Your task to perform on an android device: remove spam from my inbox in the gmail app Image 0: 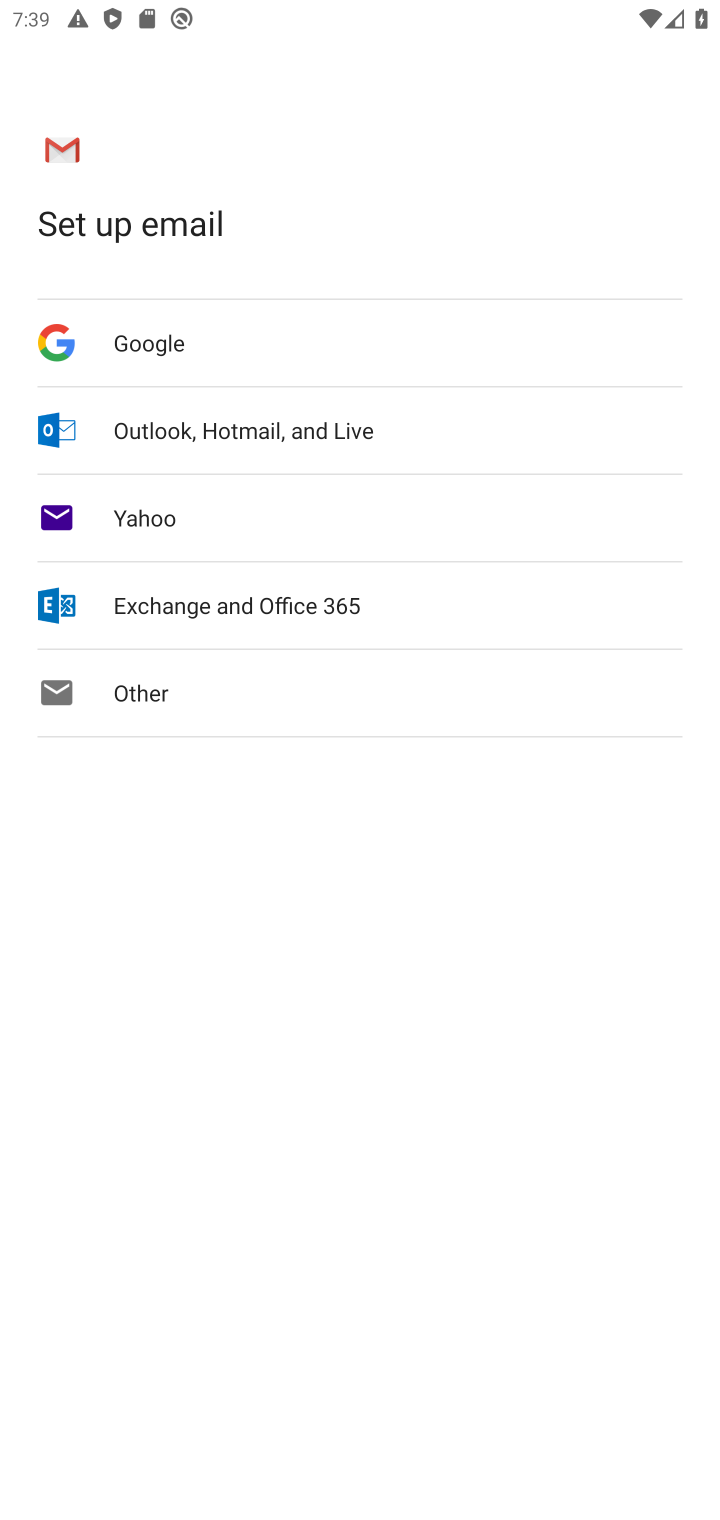
Step 0: press home button
Your task to perform on an android device: remove spam from my inbox in the gmail app Image 1: 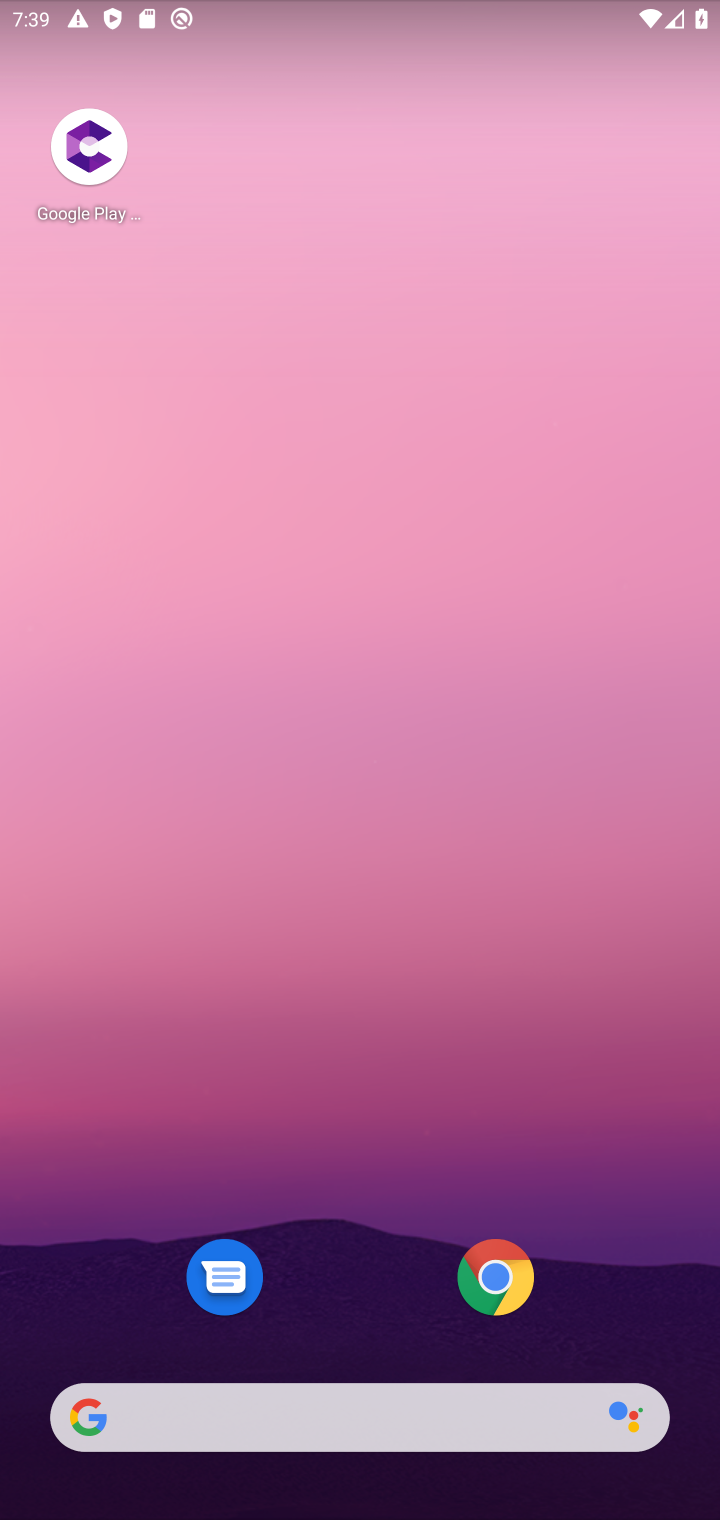
Step 1: drag from (408, 1421) to (311, 43)
Your task to perform on an android device: remove spam from my inbox in the gmail app Image 2: 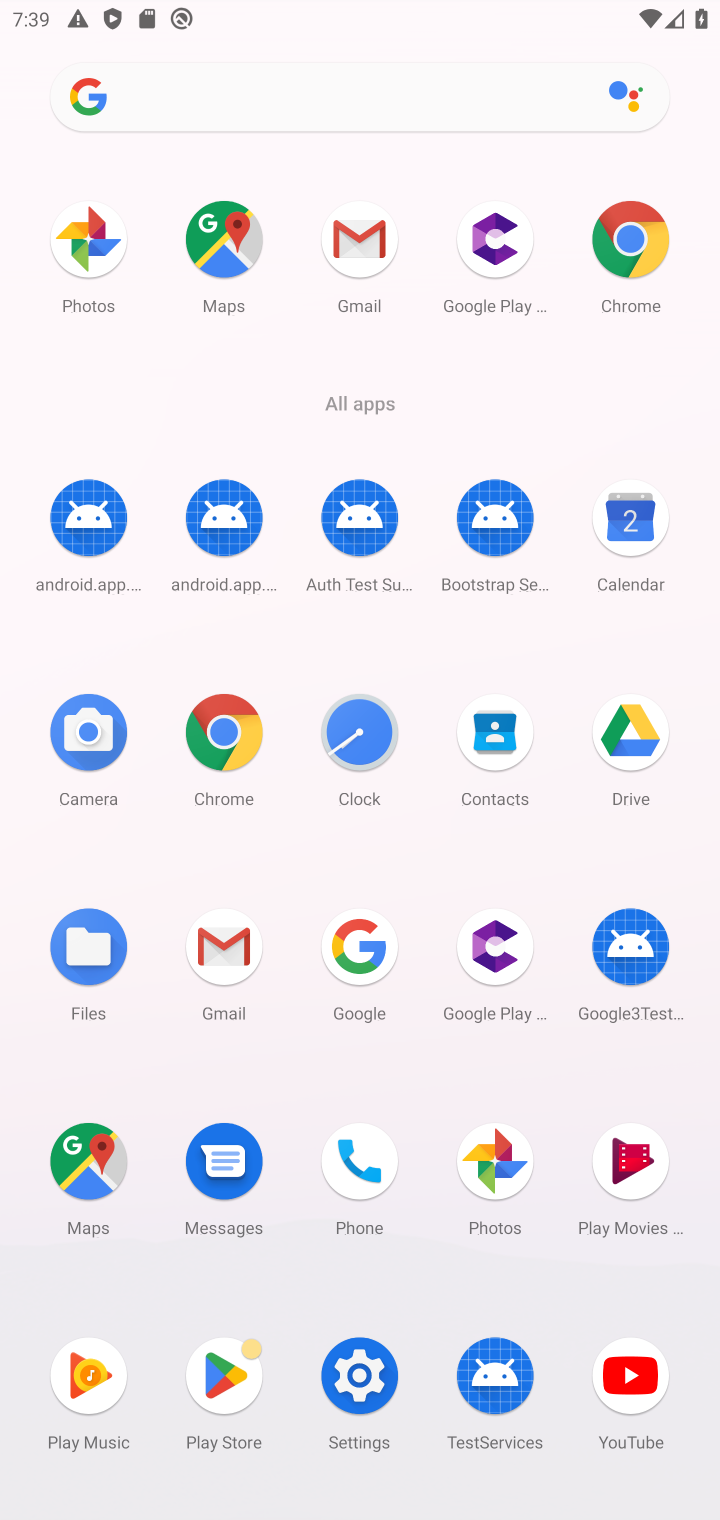
Step 2: click (229, 948)
Your task to perform on an android device: remove spam from my inbox in the gmail app Image 3: 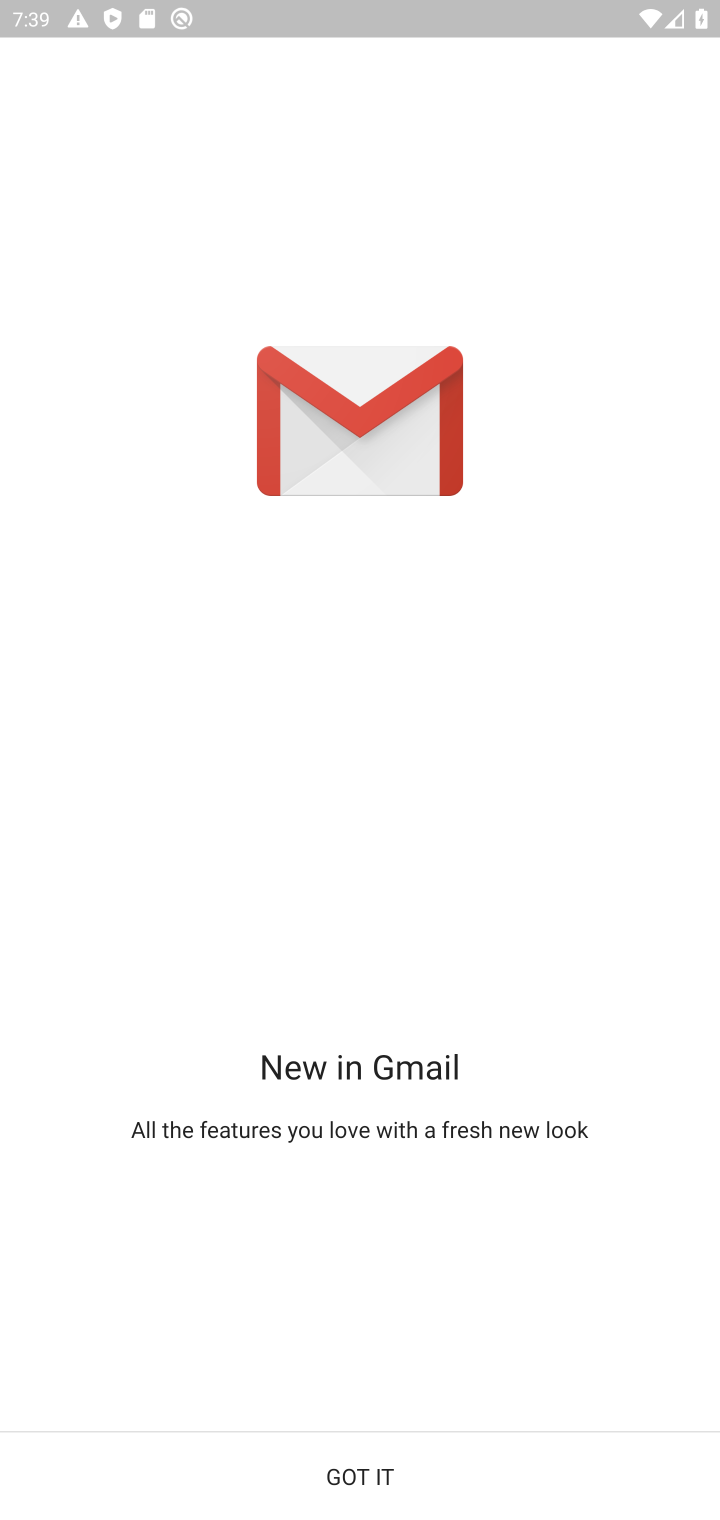
Step 3: click (383, 1454)
Your task to perform on an android device: remove spam from my inbox in the gmail app Image 4: 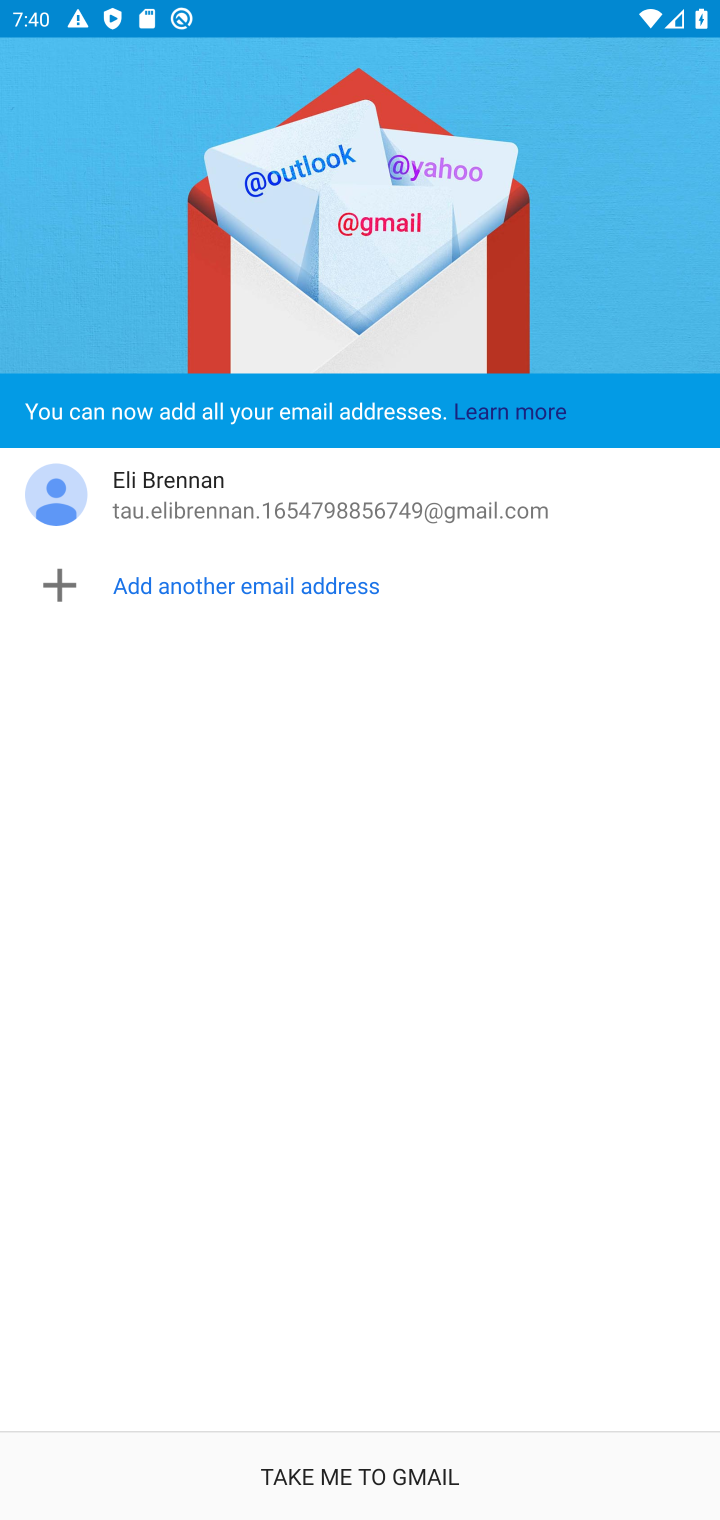
Step 4: click (383, 1454)
Your task to perform on an android device: remove spam from my inbox in the gmail app Image 5: 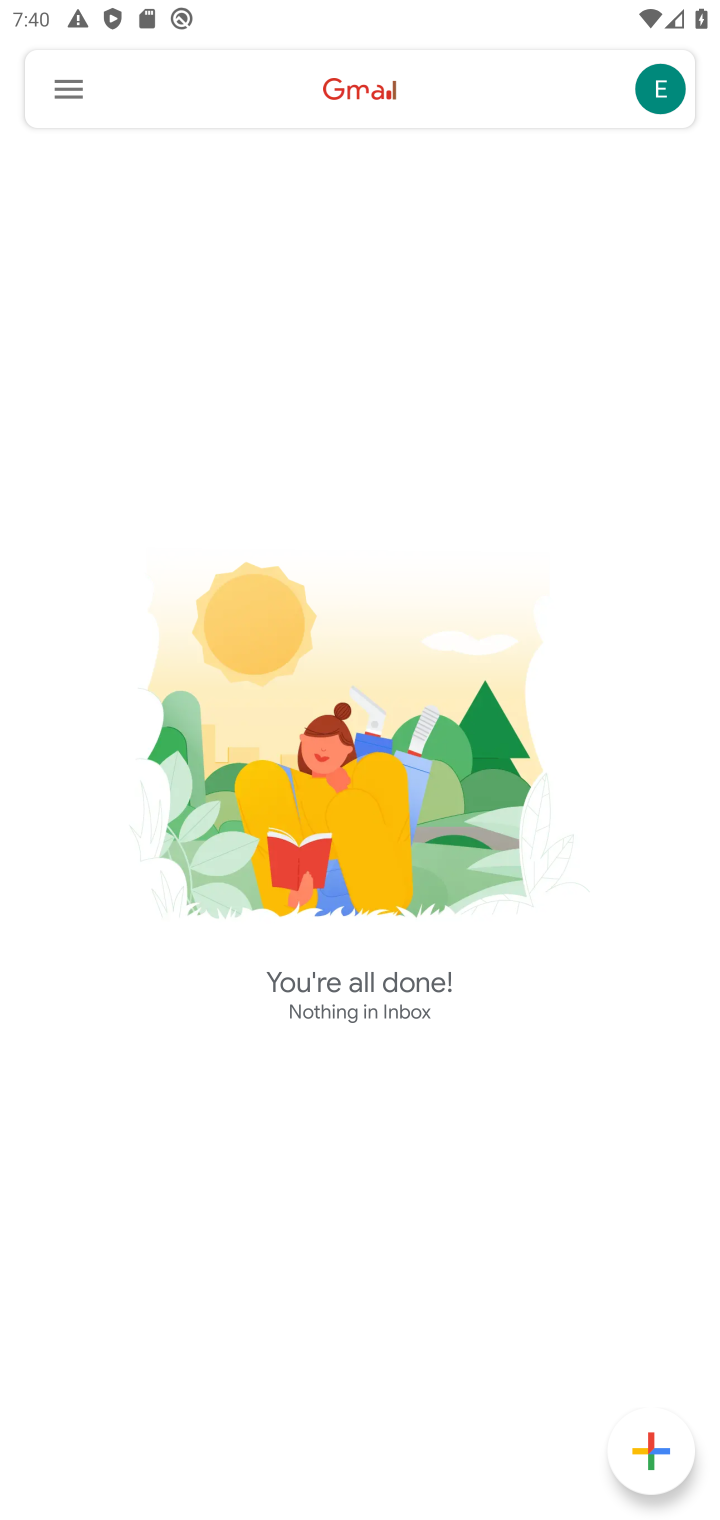
Step 5: click (74, 81)
Your task to perform on an android device: remove spam from my inbox in the gmail app Image 6: 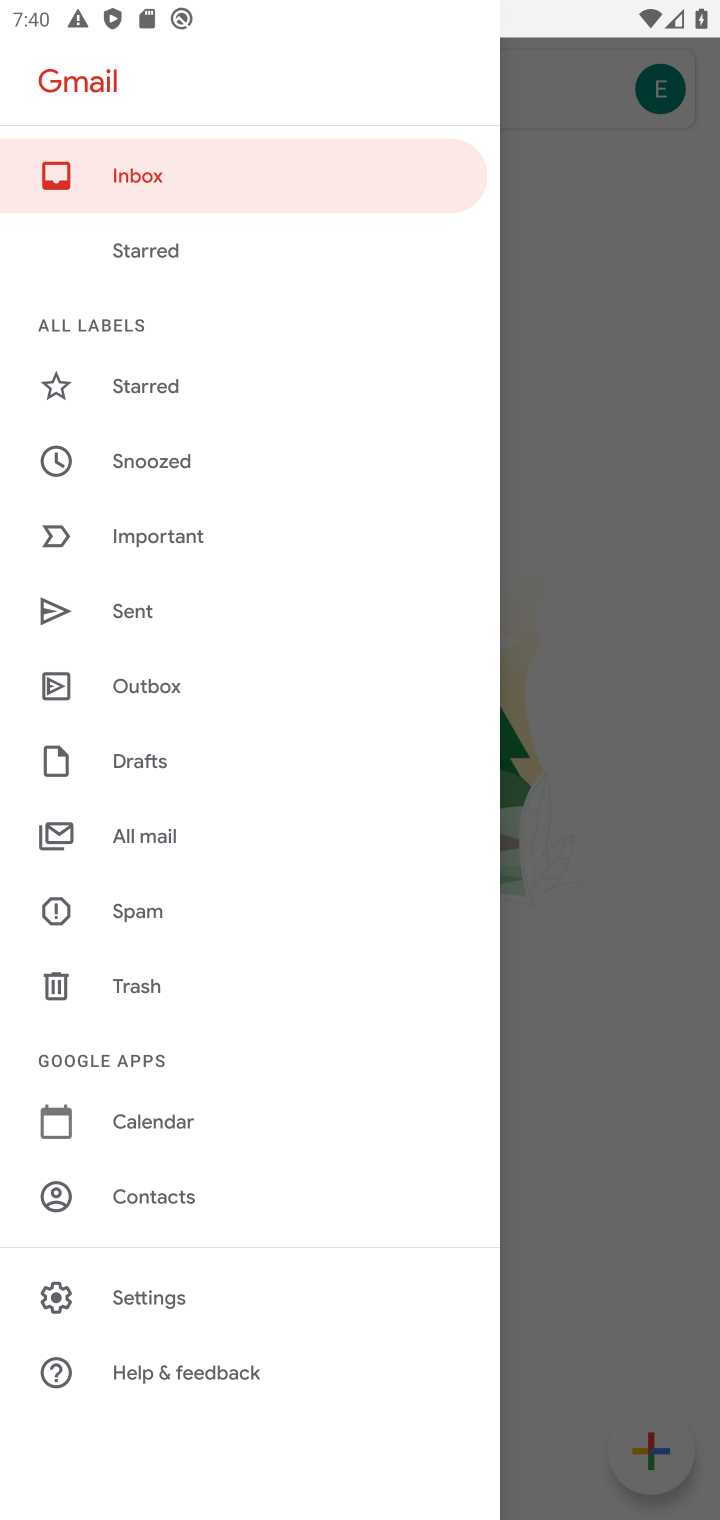
Step 6: click (136, 911)
Your task to perform on an android device: remove spam from my inbox in the gmail app Image 7: 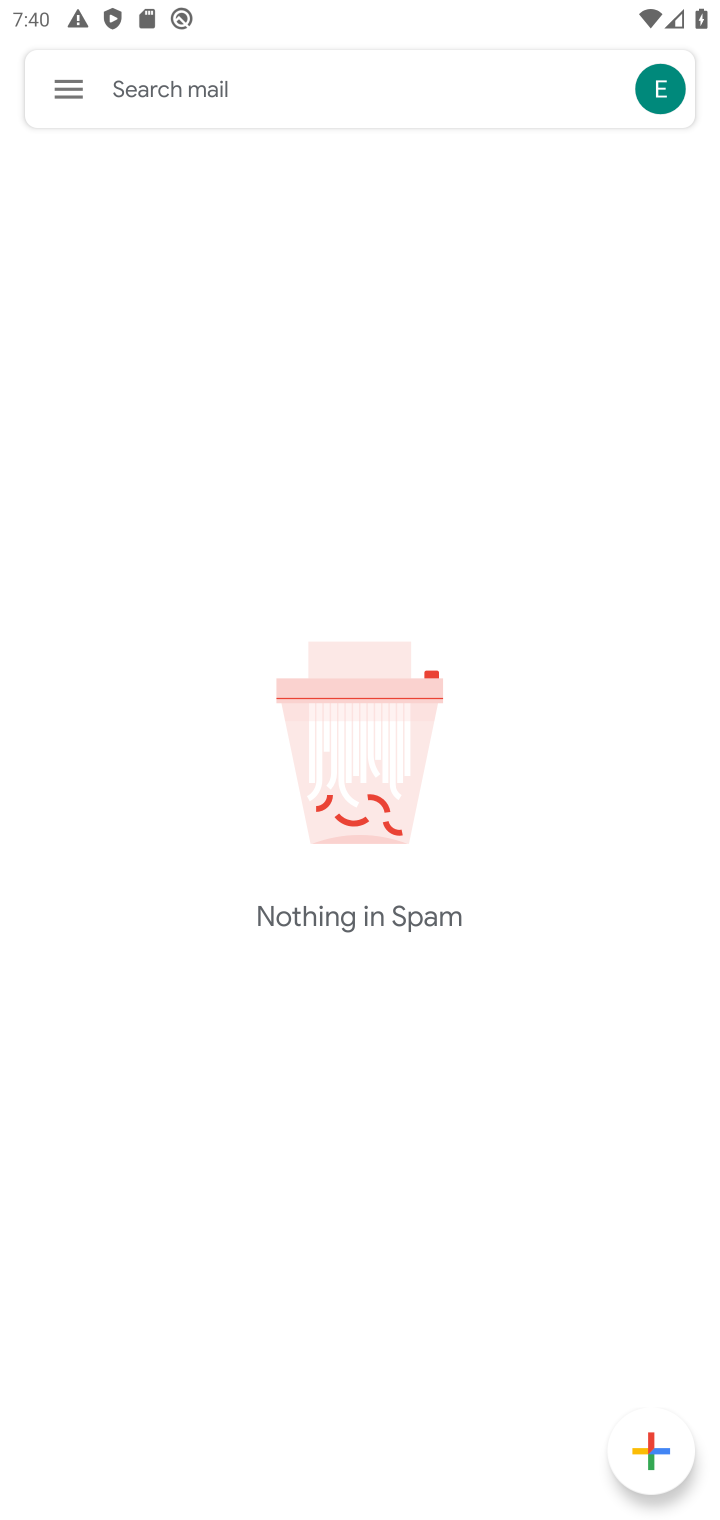
Step 7: task complete